Your task to perform on an android device: Go to settings Image 0: 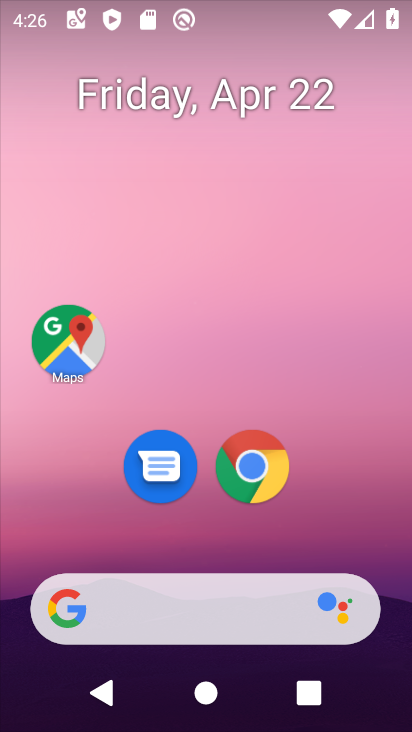
Step 0: drag from (368, 527) to (316, 207)
Your task to perform on an android device: Go to settings Image 1: 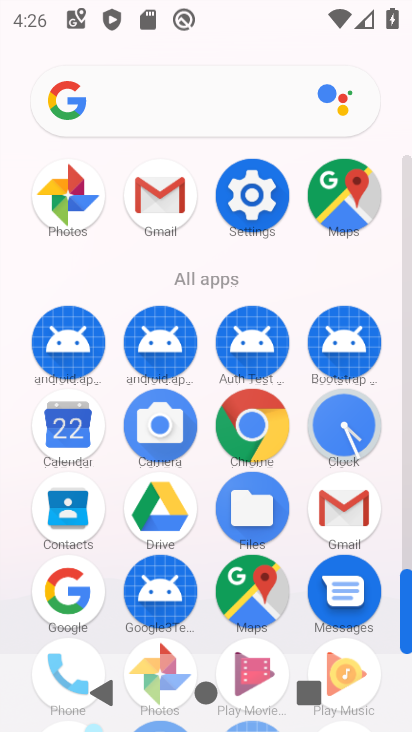
Step 1: click (263, 200)
Your task to perform on an android device: Go to settings Image 2: 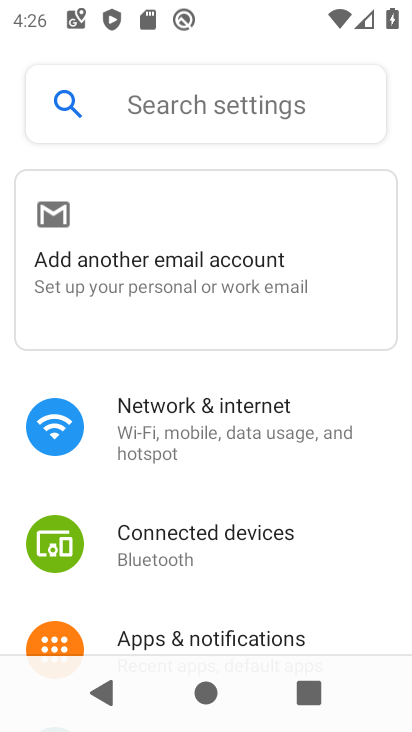
Step 2: task complete